Your task to perform on an android device: find which apps use the phone's location Image 0: 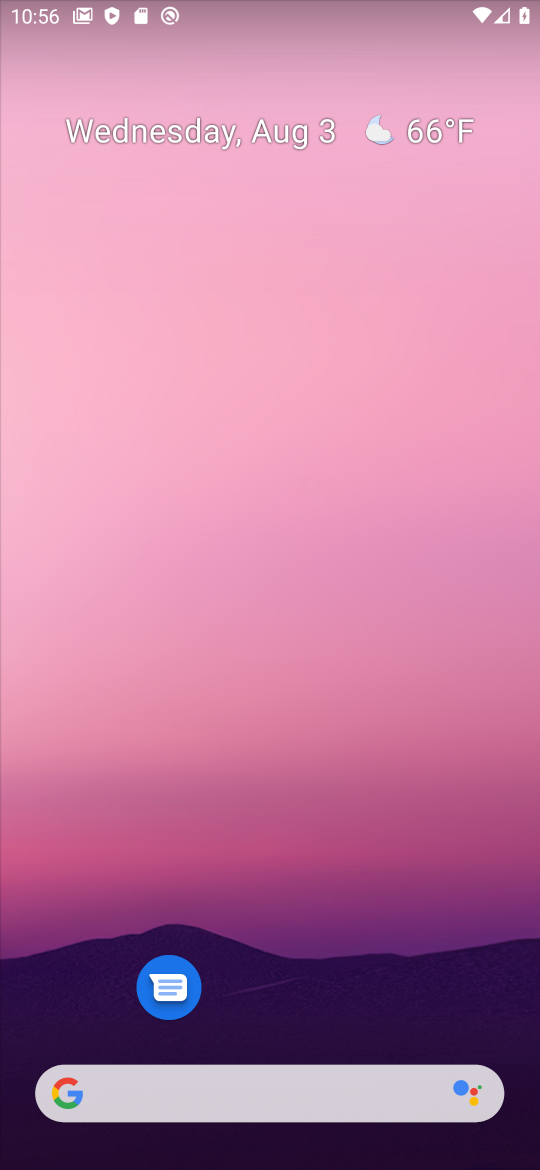
Step 0: click (383, 370)
Your task to perform on an android device: find which apps use the phone's location Image 1: 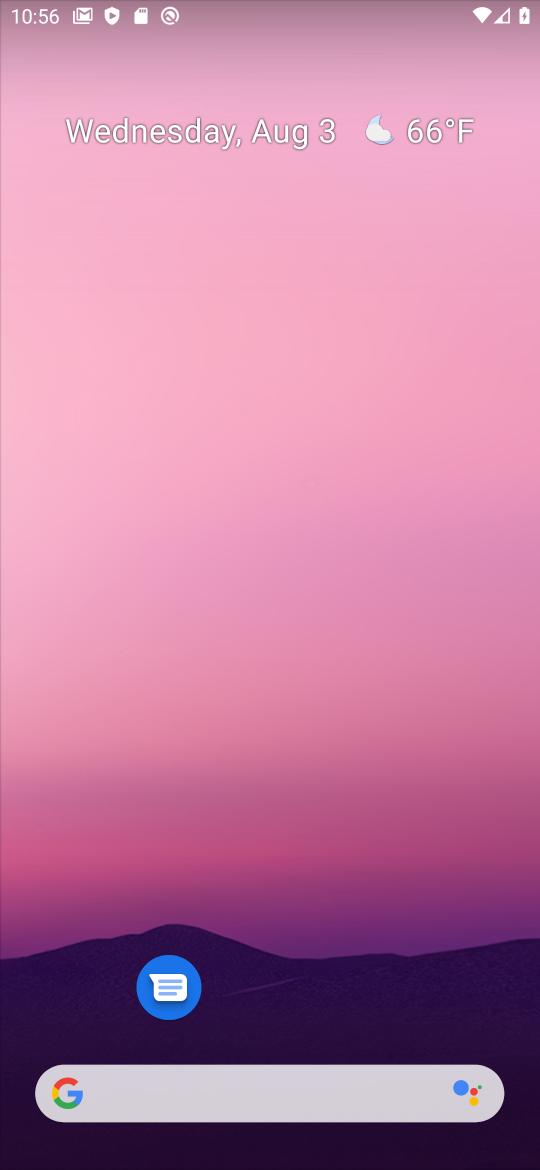
Step 1: drag from (328, 1054) to (364, 341)
Your task to perform on an android device: find which apps use the phone's location Image 2: 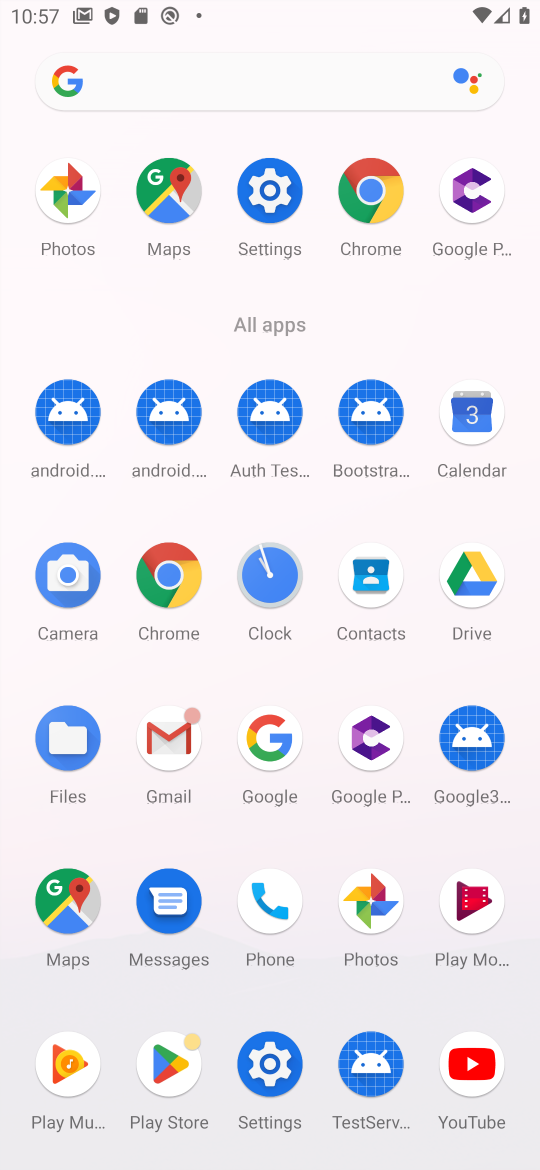
Step 2: click (264, 183)
Your task to perform on an android device: find which apps use the phone's location Image 3: 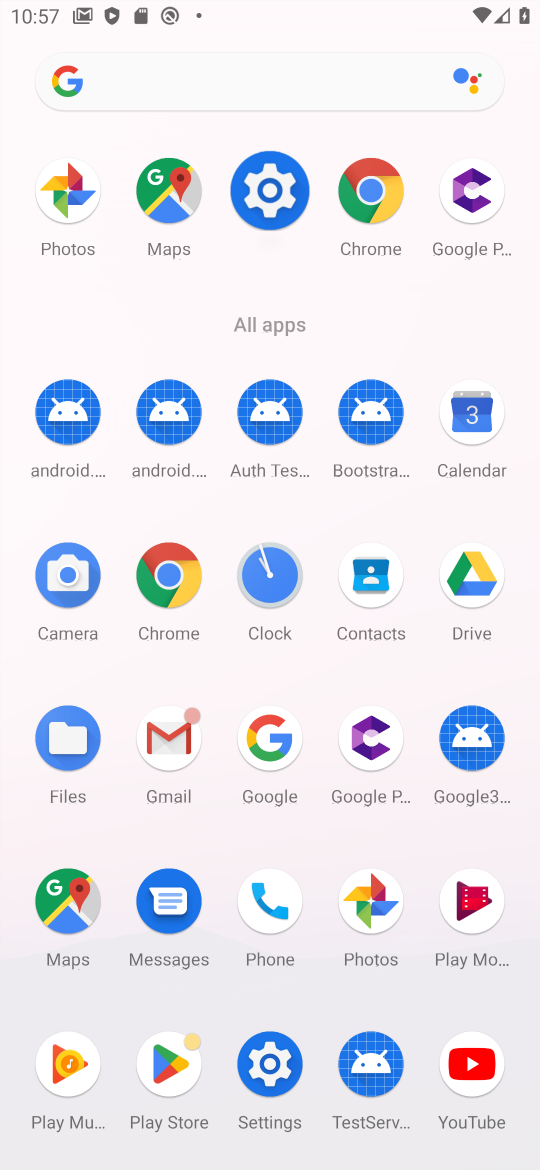
Step 3: click (266, 187)
Your task to perform on an android device: find which apps use the phone's location Image 4: 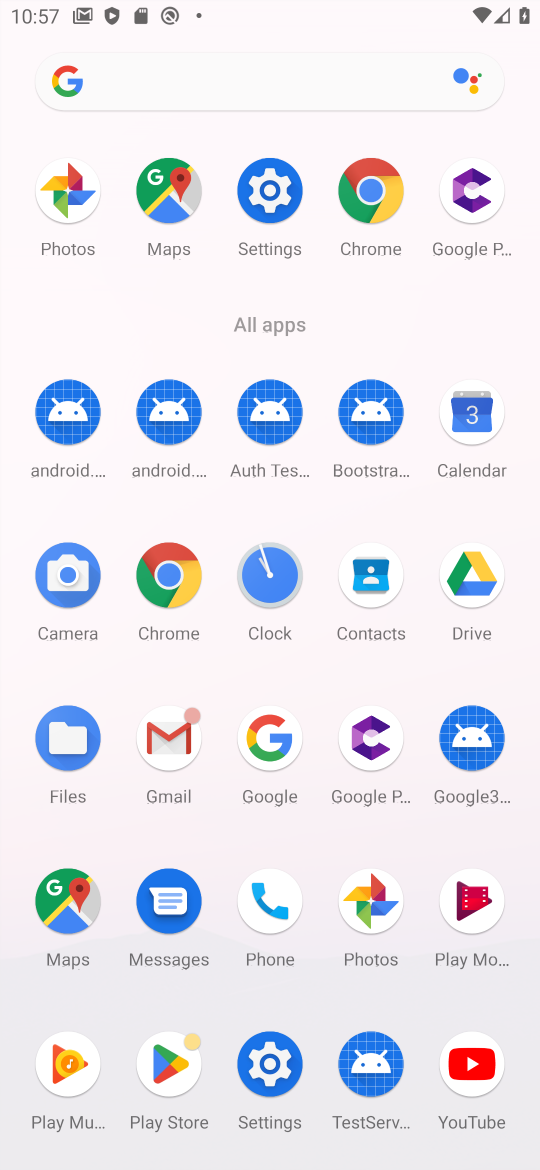
Step 4: click (282, 203)
Your task to perform on an android device: find which apps use the phone's location Image 5: 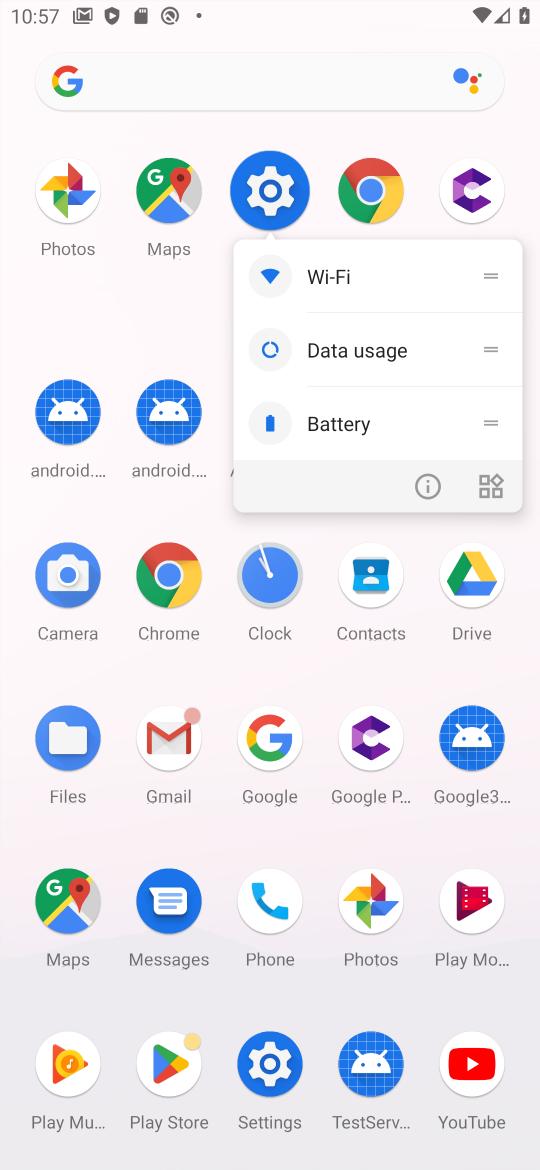
Step 5: click (275, 216)
Your task to perform on an android device: find which apps use the phone's location Image 6: 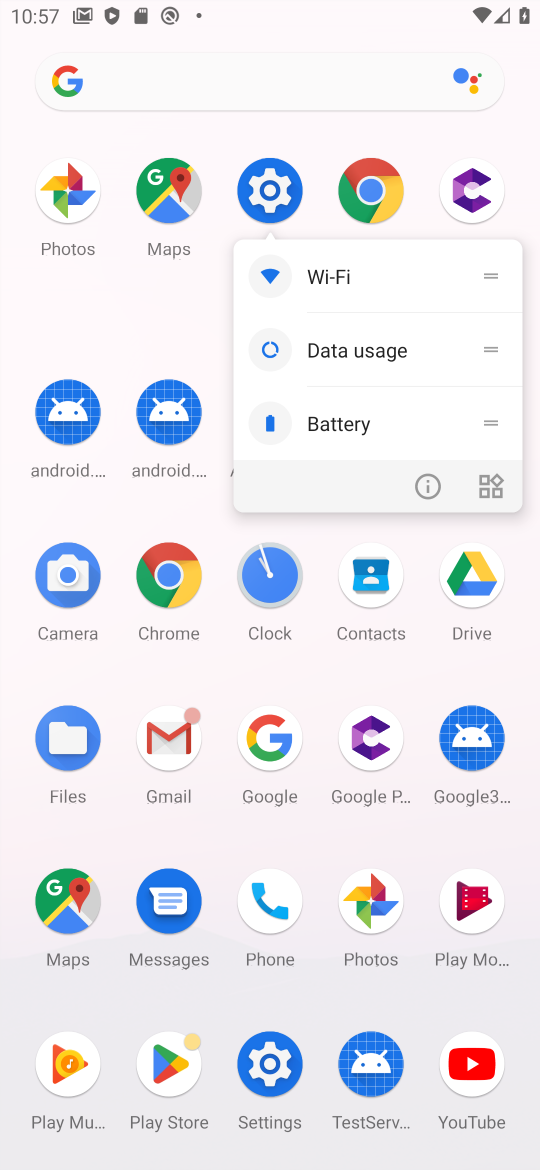
Step 6: click (337, 352)
Your task to perform on an android device: find which apps use the phone's location Image 7: 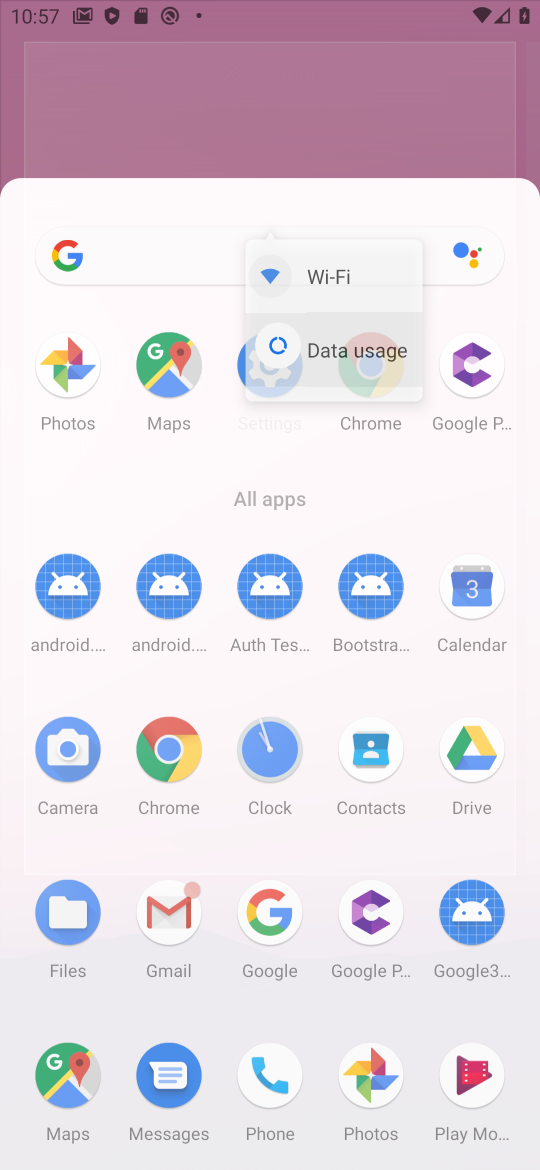
Step 7: click (283, 220)
Your task to perform on an android device: find which apps use the phone's location Image 8: 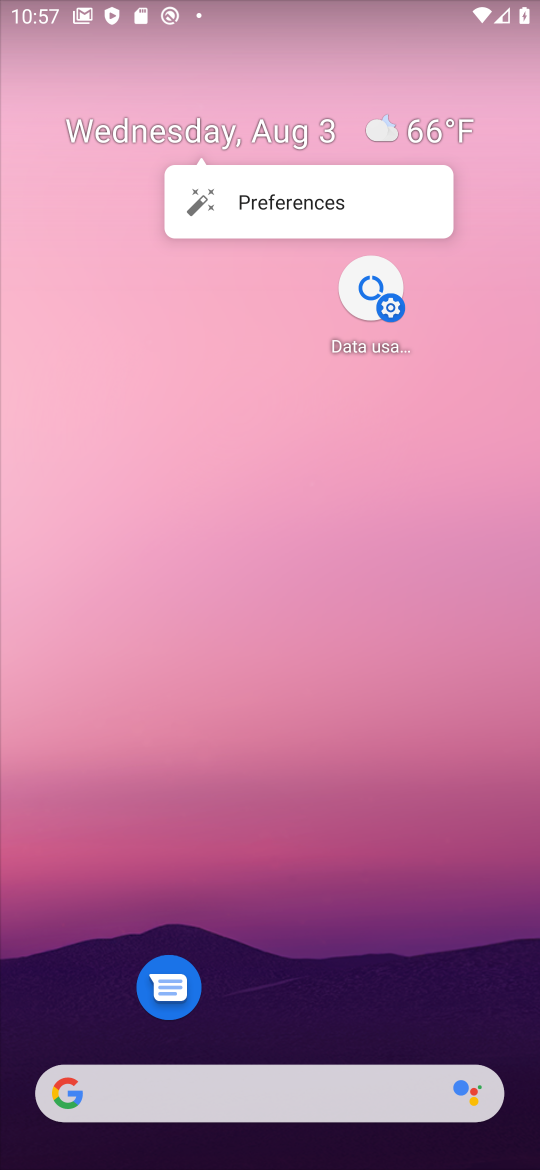
Step 8: click (270, 191)
Your task to perform on an android device: find which apps use the phone's location Image 9: 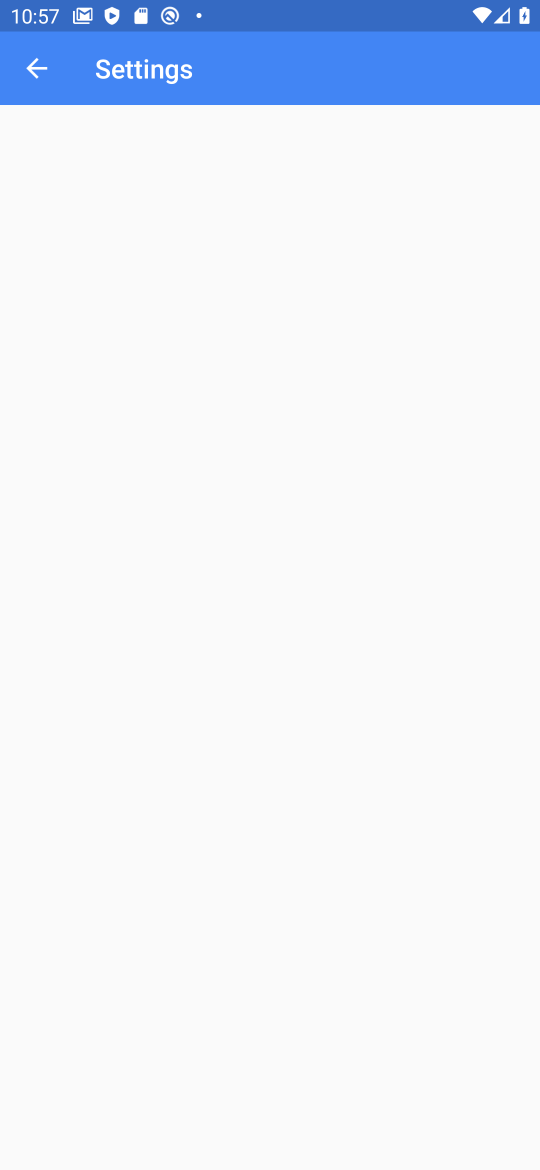
Step 9: drag from (416, 433) to (416, 316)
Your task to perform on an android device: find which apps use the phone's location Image 10: 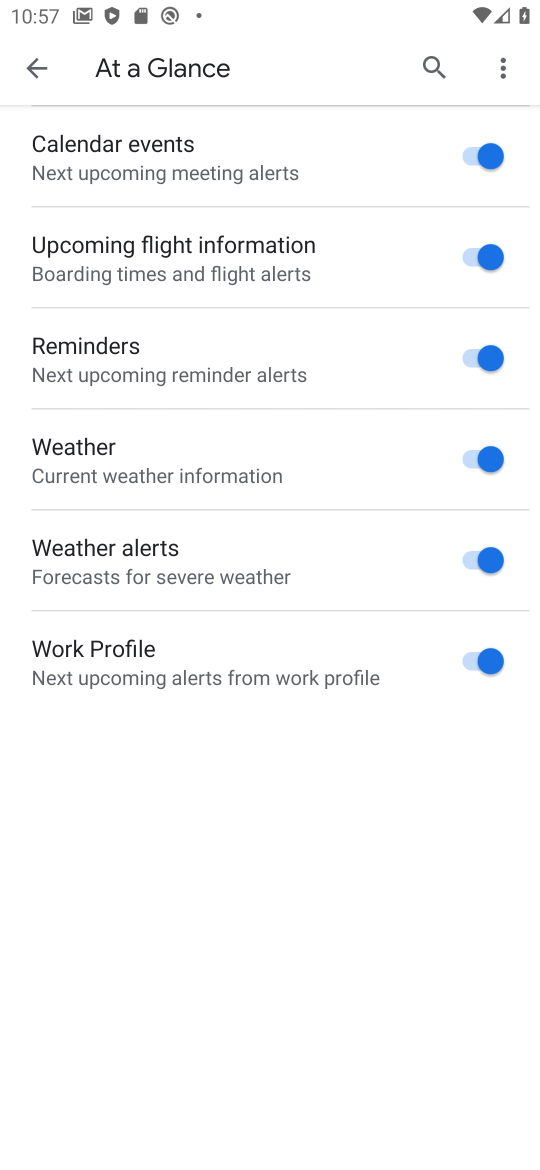
Step 10: click (38, 66)
Your task to perform on an android device: find which apps use the phone's location Image 11: 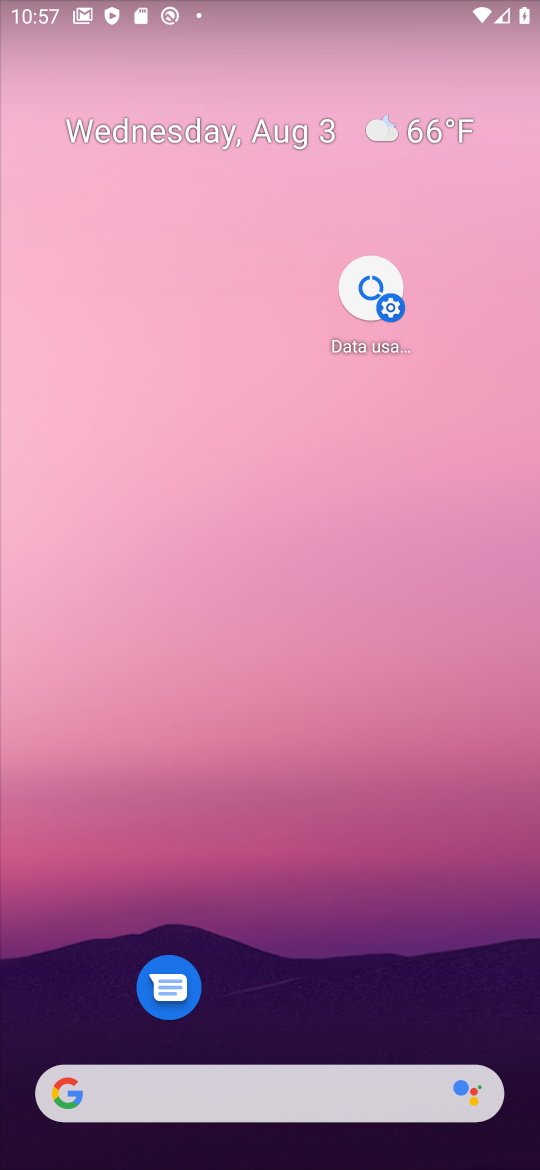
Step 11: drag from (317, 885) to (280, 106)
Your task to perform on an android device: find which apps use the phone's location Image 12: 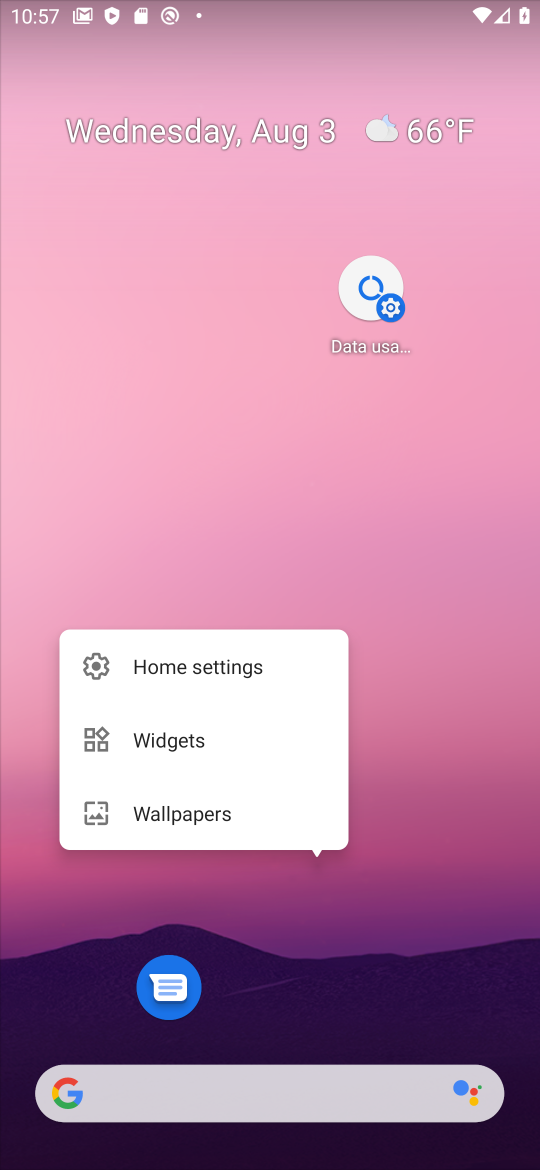
Step 12: drag from (260, 158) to (291, 362)
Your task to perform on an android device: find which apps use the phone's location Image 13: 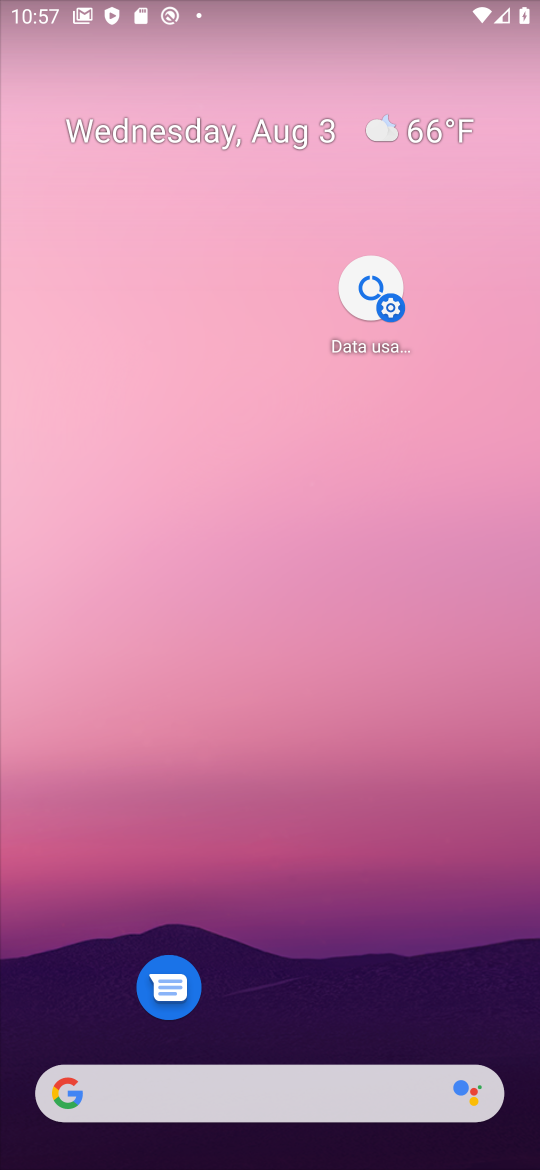
Step 13: click (262, 375)
Your task to perform on an android device: find which apps use the phone's location Image 14: 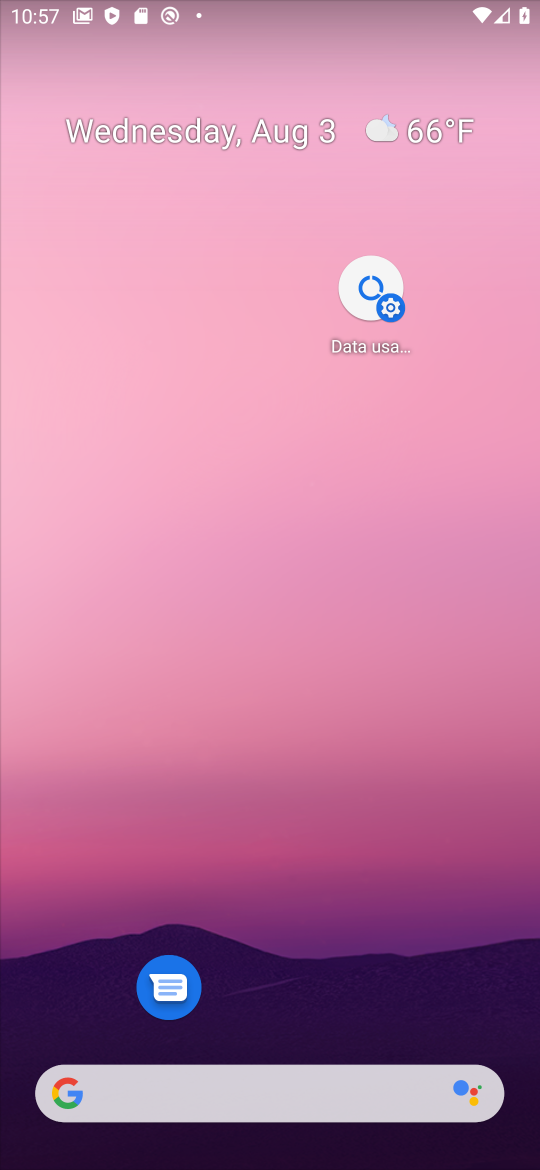
Step 14: drag from (271, 127) to (373, 238)
Your task to perform on an android device: find which apps use the phone's location Image 15: 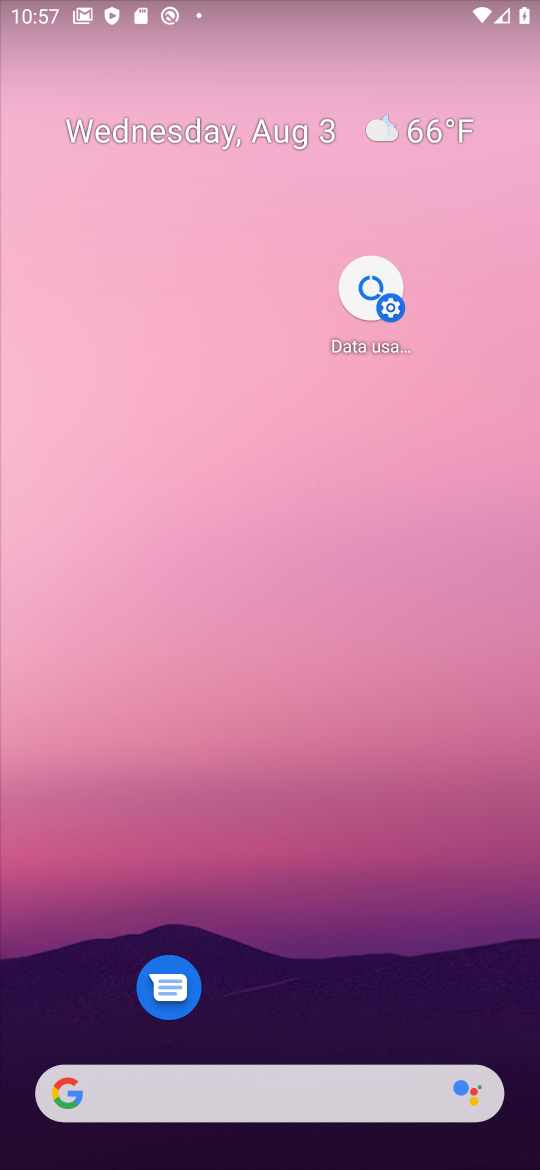
Step 15: drag from (340, 708) to (212, 65)
Your task to perform on an android device: find which apps use the phone's location Image 16: 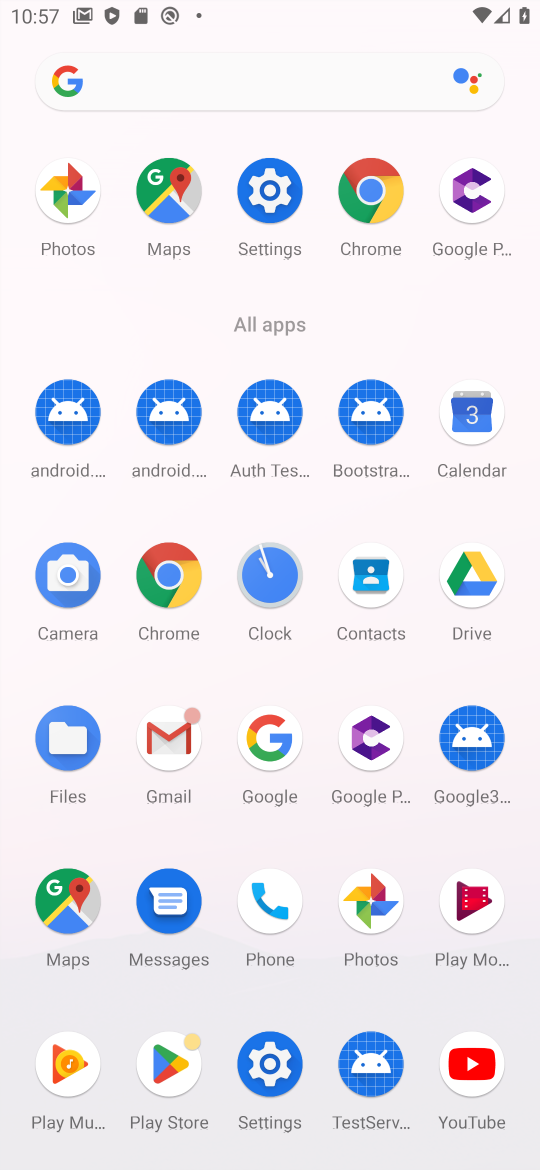
Step 16: drag from (262, 121) to (349, 165)
Your task to perform on an android device: find which apps use the phone's location Image 17: 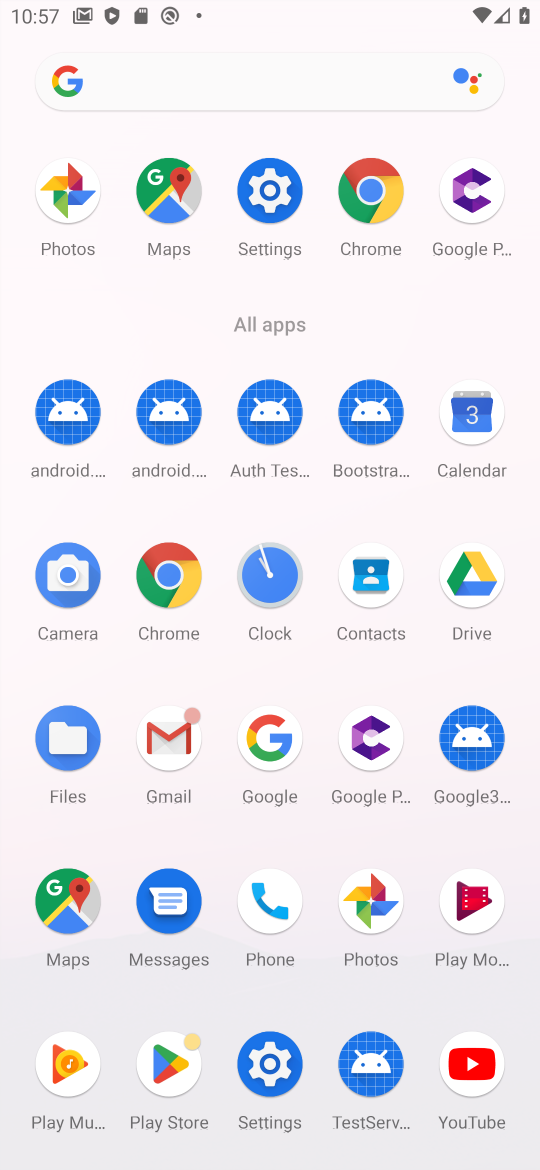
Step 17: click (262, 193)
Your task to perform on an android device: find which apps use the phone's location Image 18: 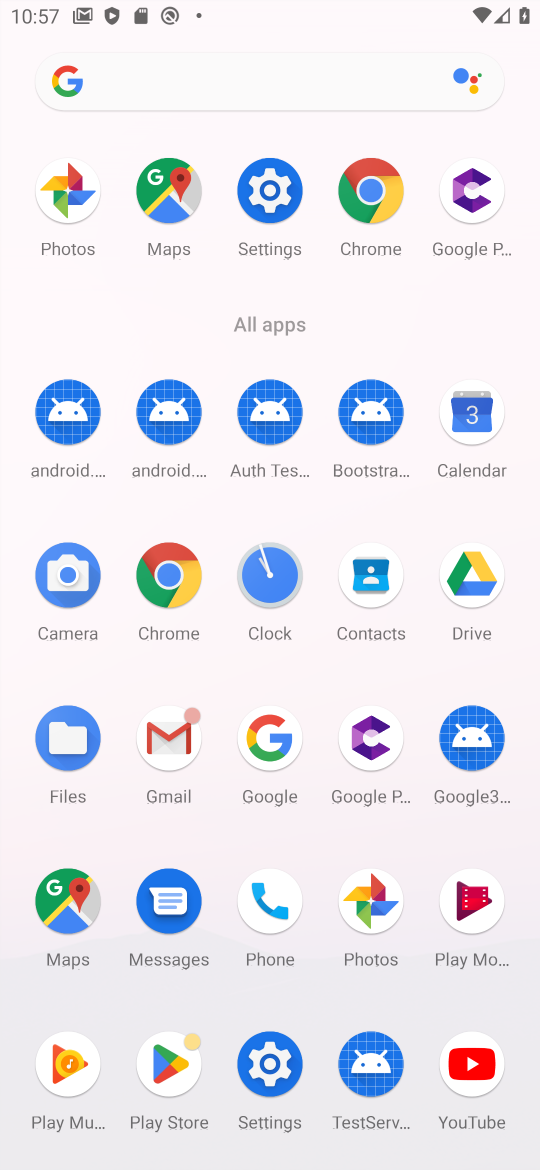
Step 18: click (263, 196)
Your task to perform on an android device: find which apps use the phone's location Image 19: 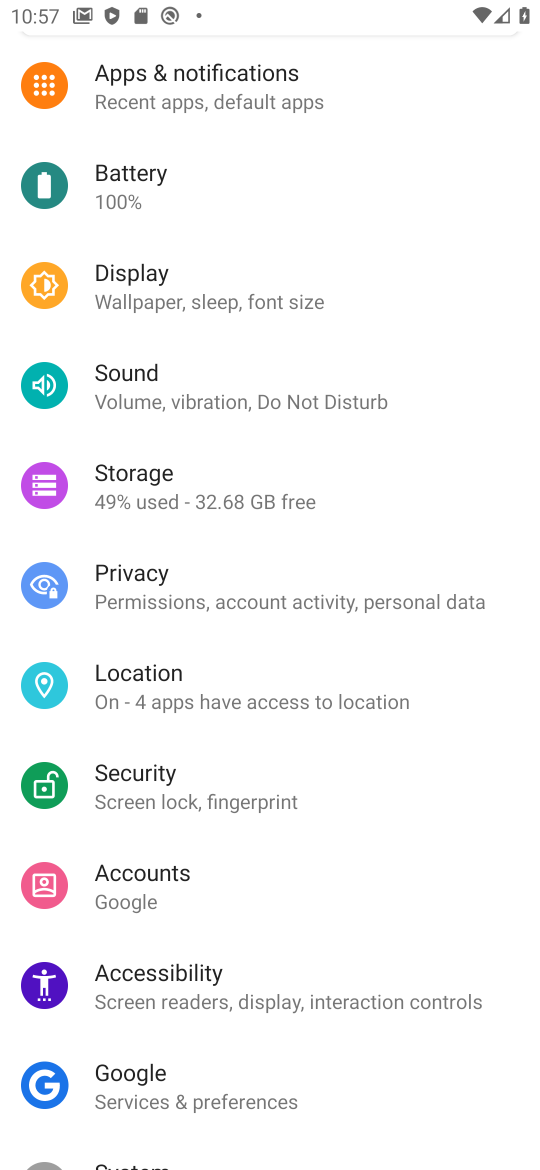
Step 19: click (268, 198)
Your task to perform on an android device: find which apps use the phone's location Image 20: 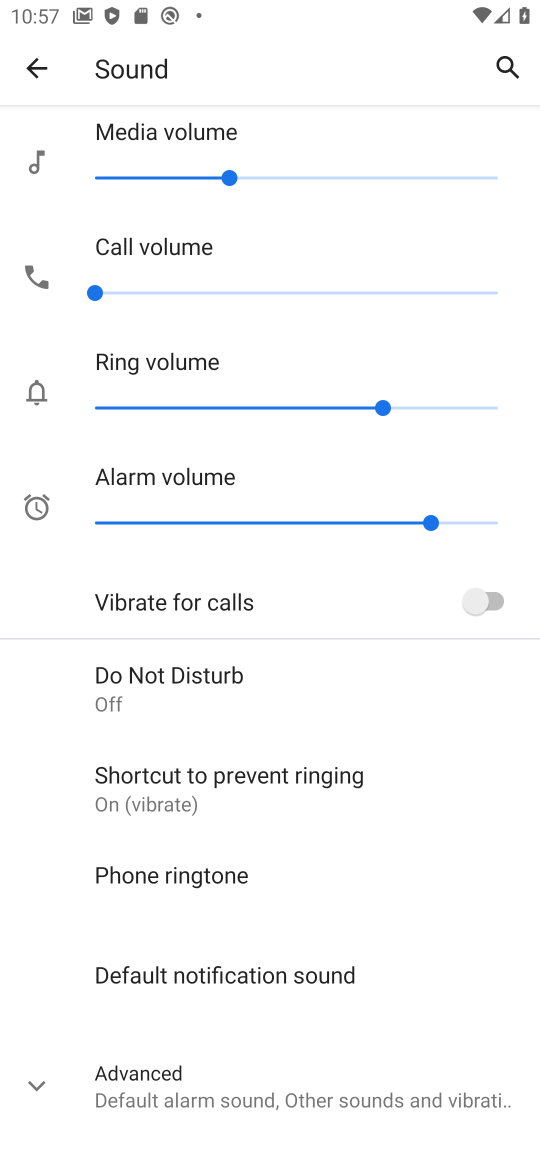
Step 20: click (126, 555)
Your task to perform on an android device: find which apps use the phone's location Image 21: 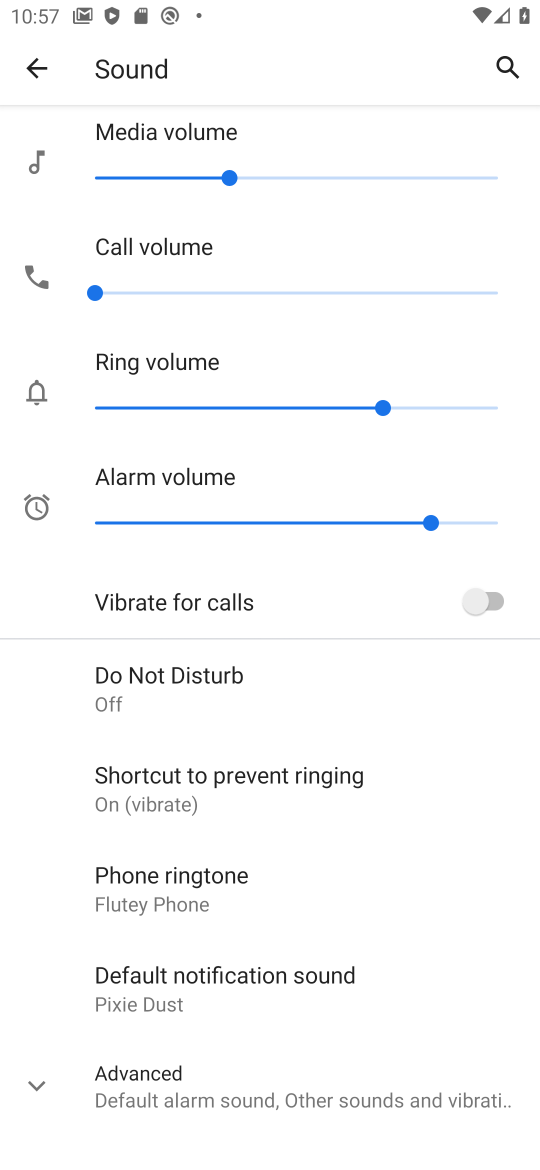
Step 21: click (29, 49)
Your task to perform on an android device: find which apps use the phone's location Image 22: 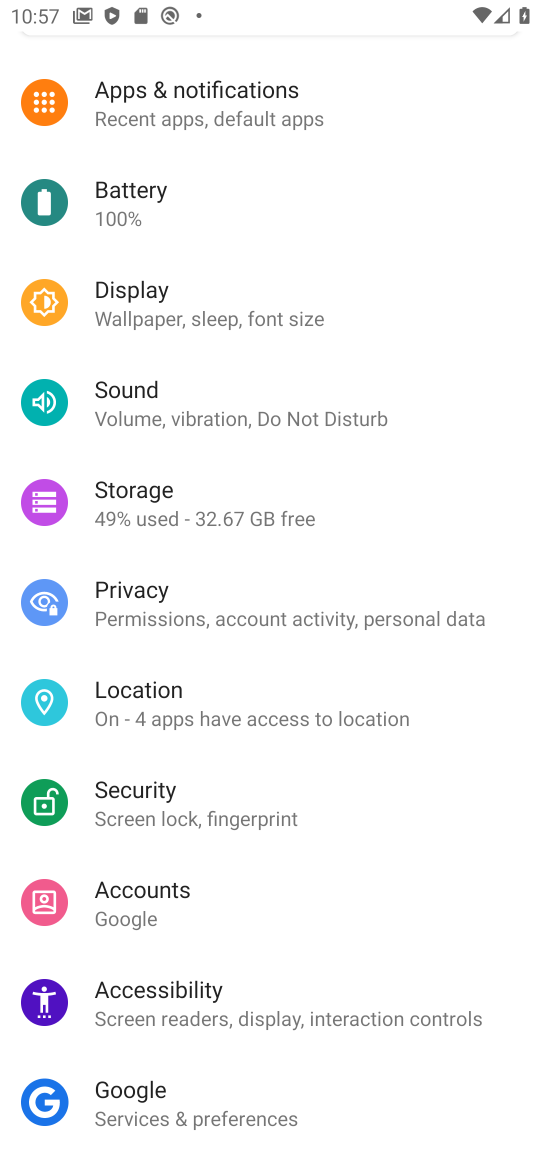
Step 22: click (164, 700)
Your task to perform on an android device: find which apps use the phone's location Image 23: 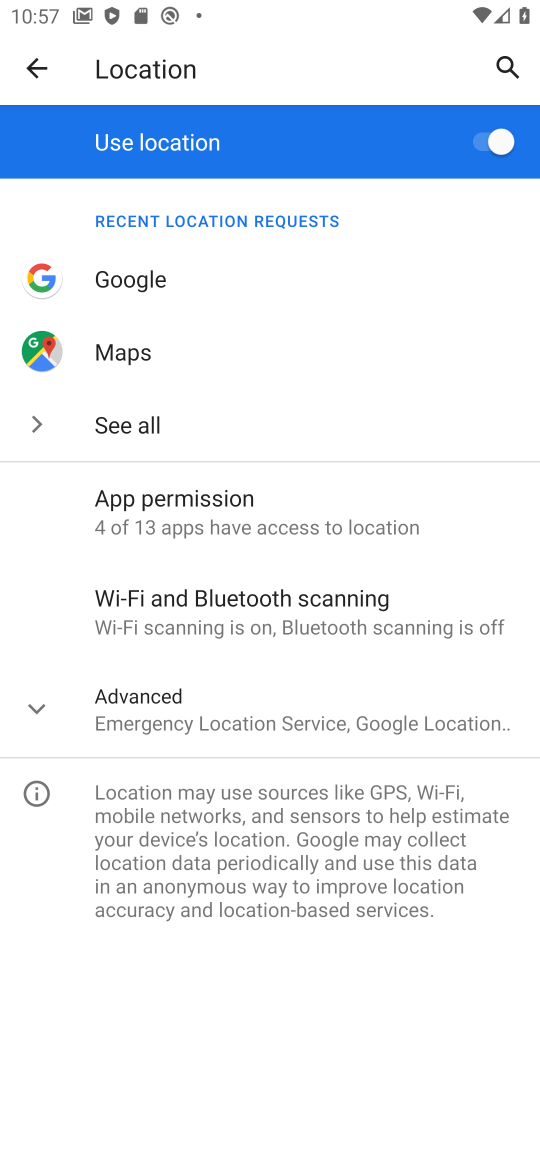
Step 23: click (181, 509)
Your task to perform on an android device: find which apps use the phone's location Image 24: 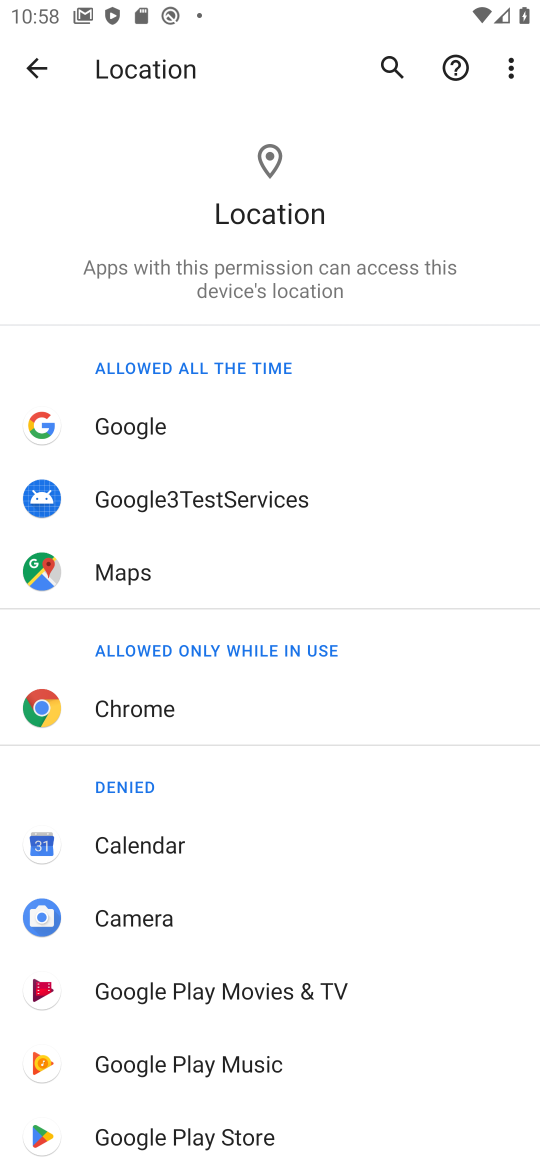
Step 24: task complete